Your task to perform on an android device: check out phone information Image 0: 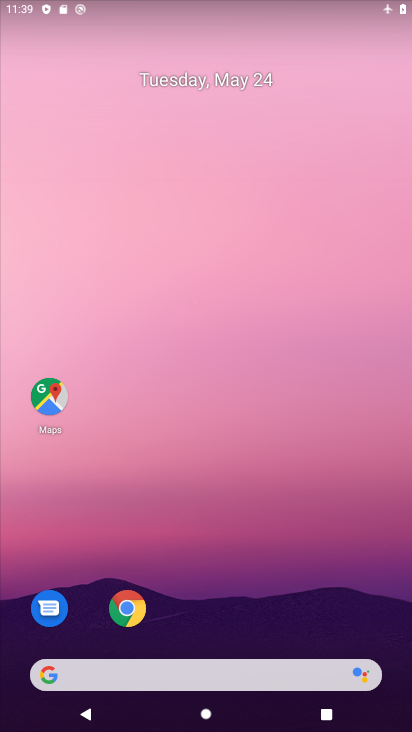
Step 0: drag from (231, 615) to (245, 85)
Your task to perform on an android device: check out phone information Image 1: 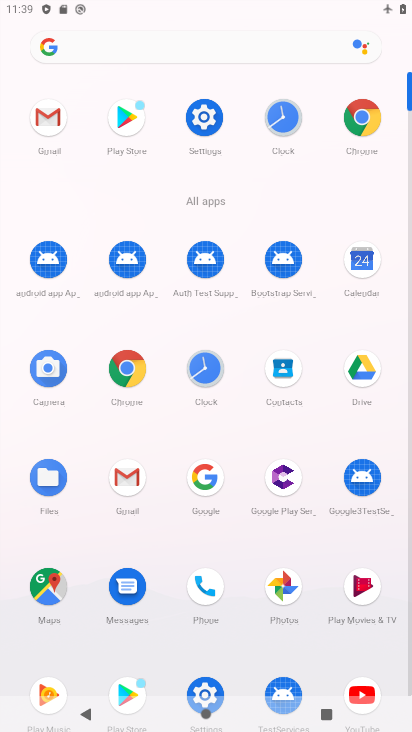
Step 1: click (192, 147)
Your task to perform on an android device: check out phone information Image 2: 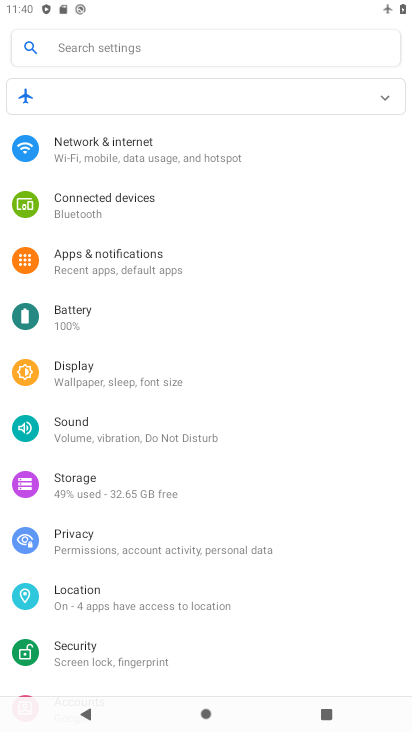
Step 2: task complete